Your task to perform on an android device: Open Amazon Image 0: 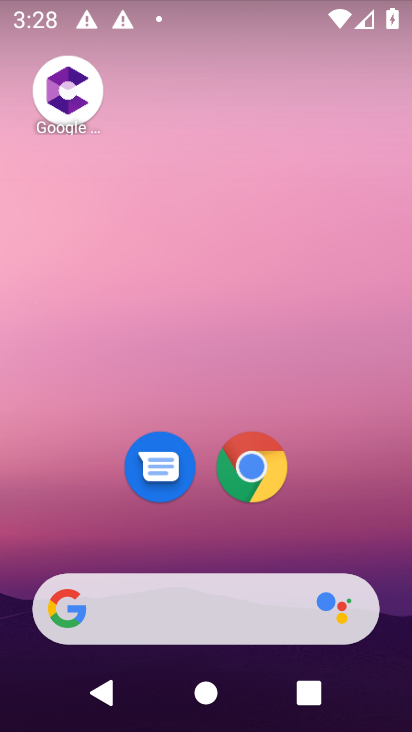
Step 0: click (111, 605)
Your task to perform on an android device: Open Amazon Image 1: 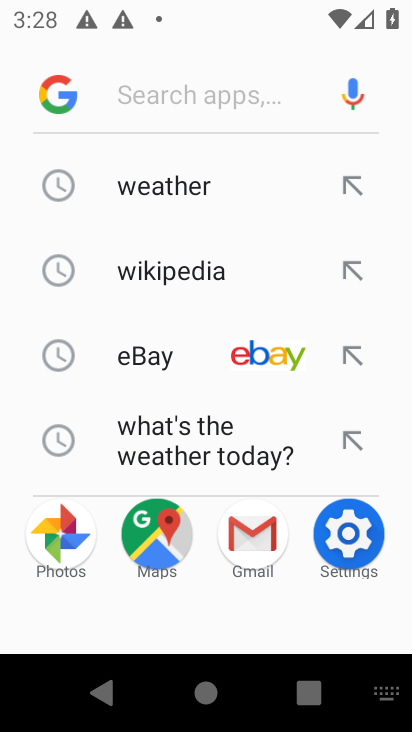
Step 1: type "Amazon"
Your task to perform on an android device: Open Amazon Image 2: 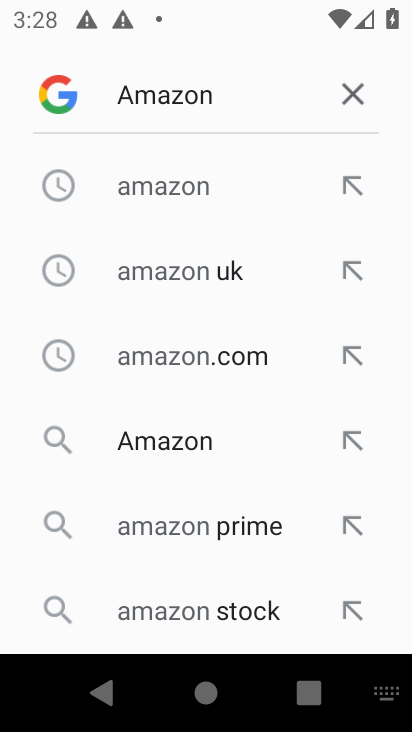
Step 2: click (175, 188)
Your task to perform on an android device: Open Amazon Image 3: 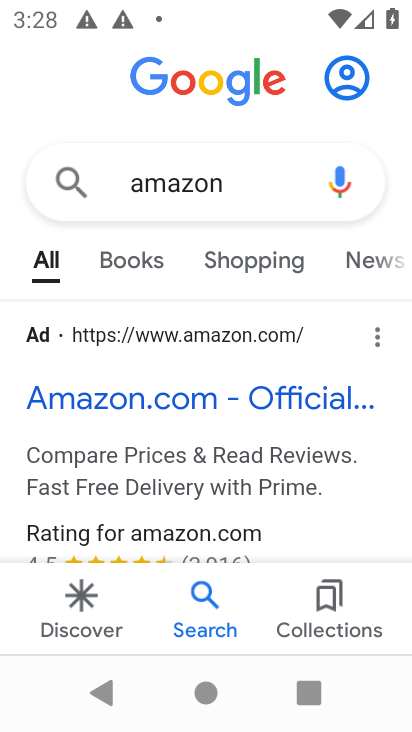
Step 3: task complete